Your task to perform on an android device: add a label to a message in the gmail app Image 0: 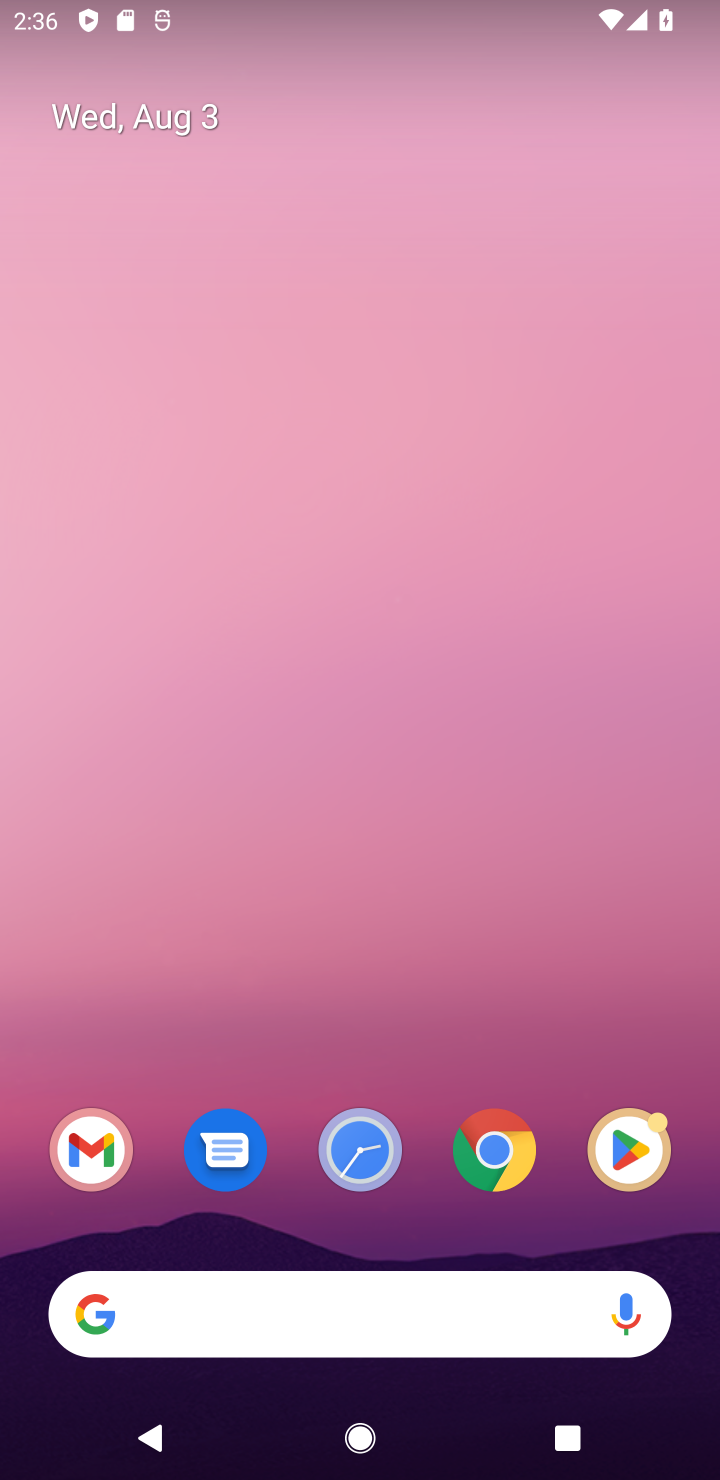
Step 0: drag from (303, 1297) to (269, 340)
Your task to perform on an android device: add a label to a message in the gmail app Image 1: 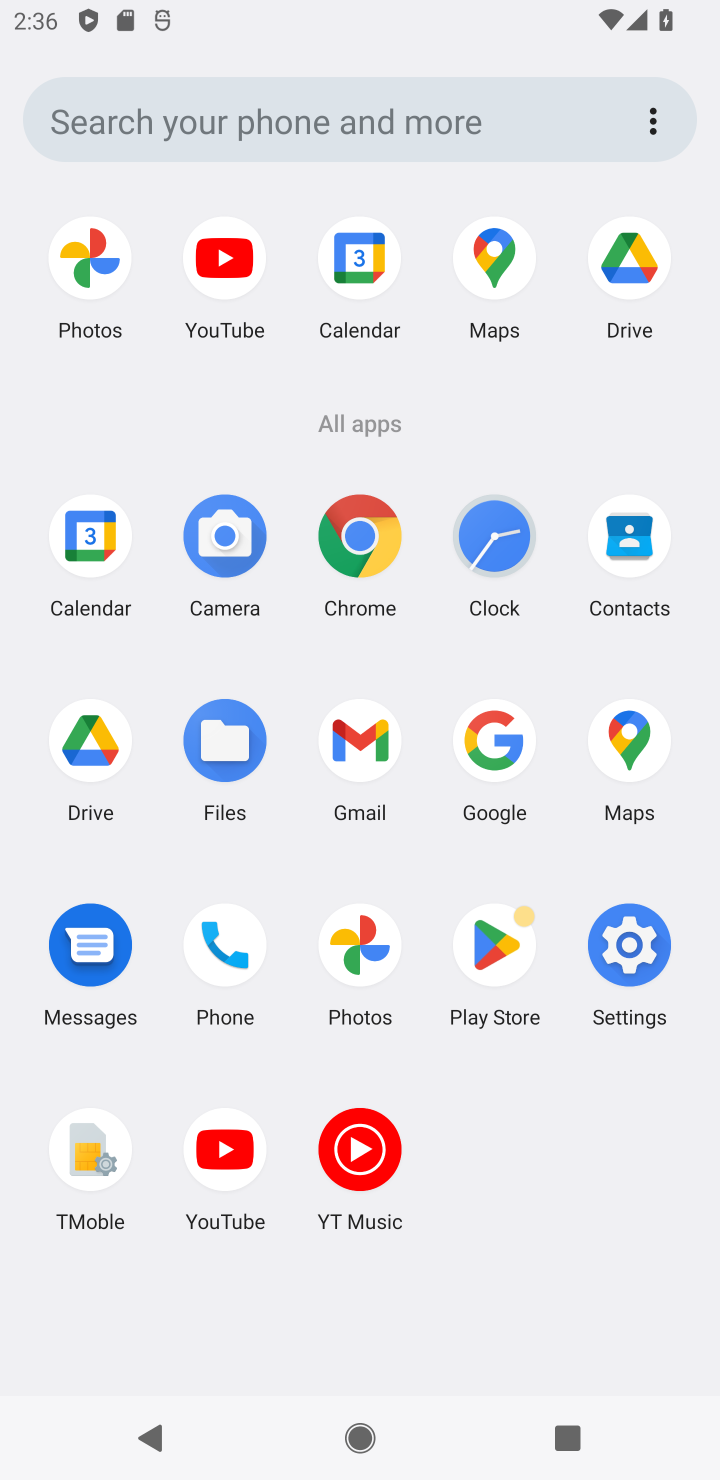
Step 1: click (361, 748)
Your task to perform on an android device: add a label to a message in the gmail app Image 2: 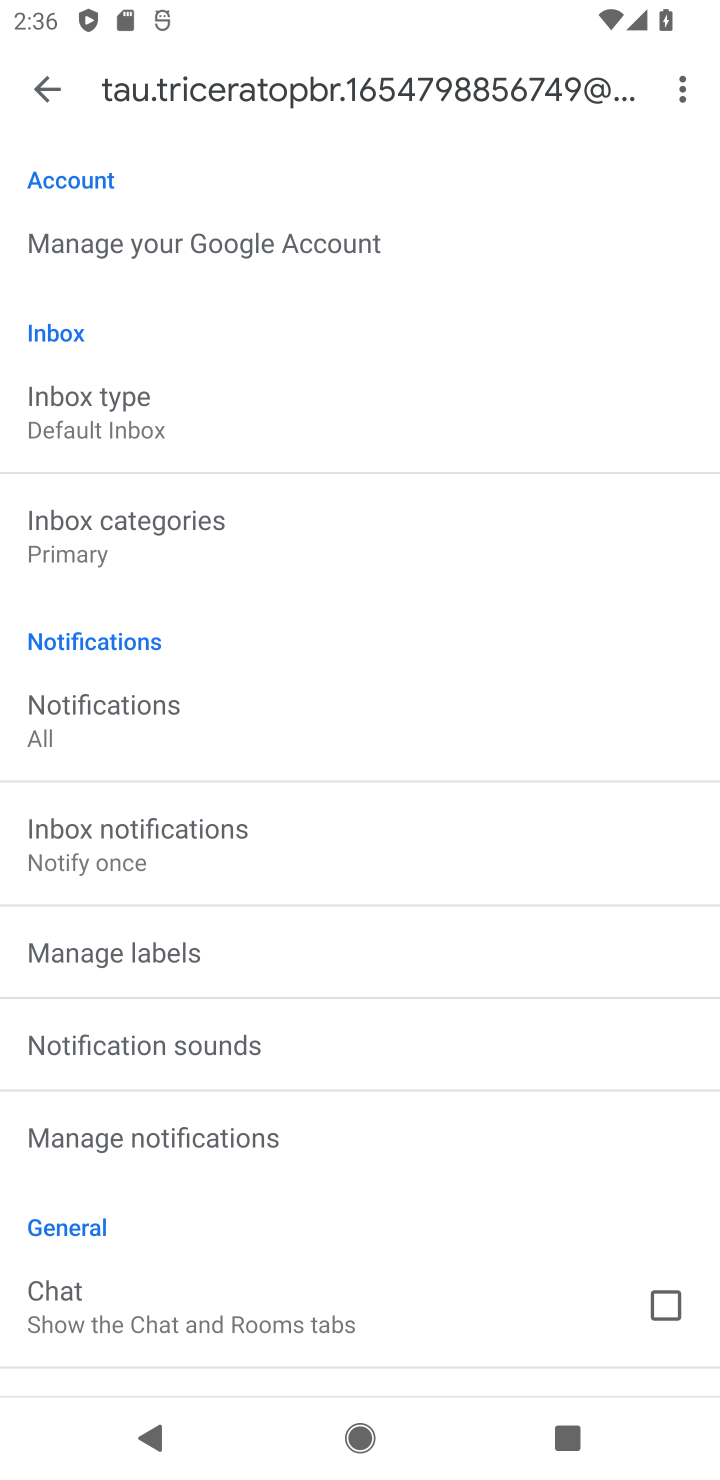
Step 2: click (45, 86)
Your task to perform on an android device: add a label to a message in the gmail app Image 3: 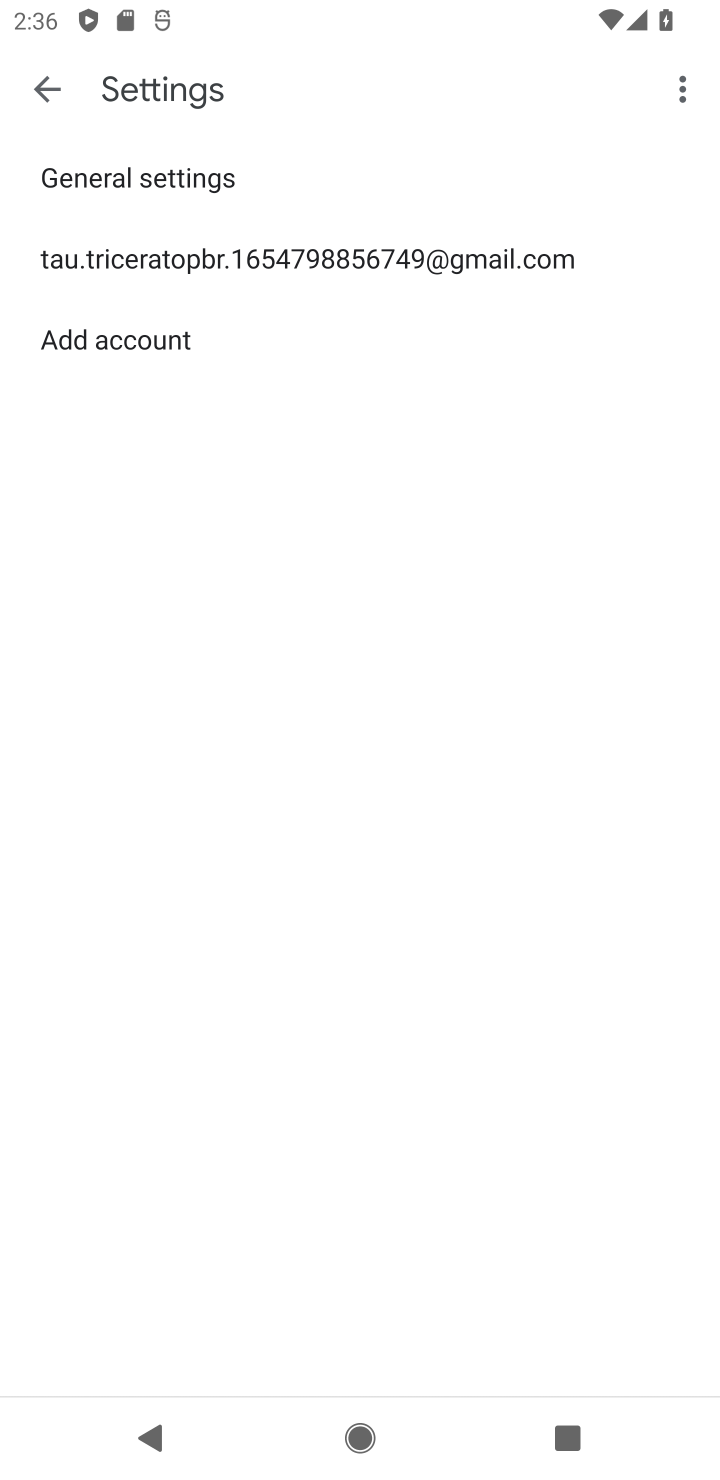
Step 3: click (45, 86)
Your task to perform on an android device: add a label to a message in the gmail app Image 4: 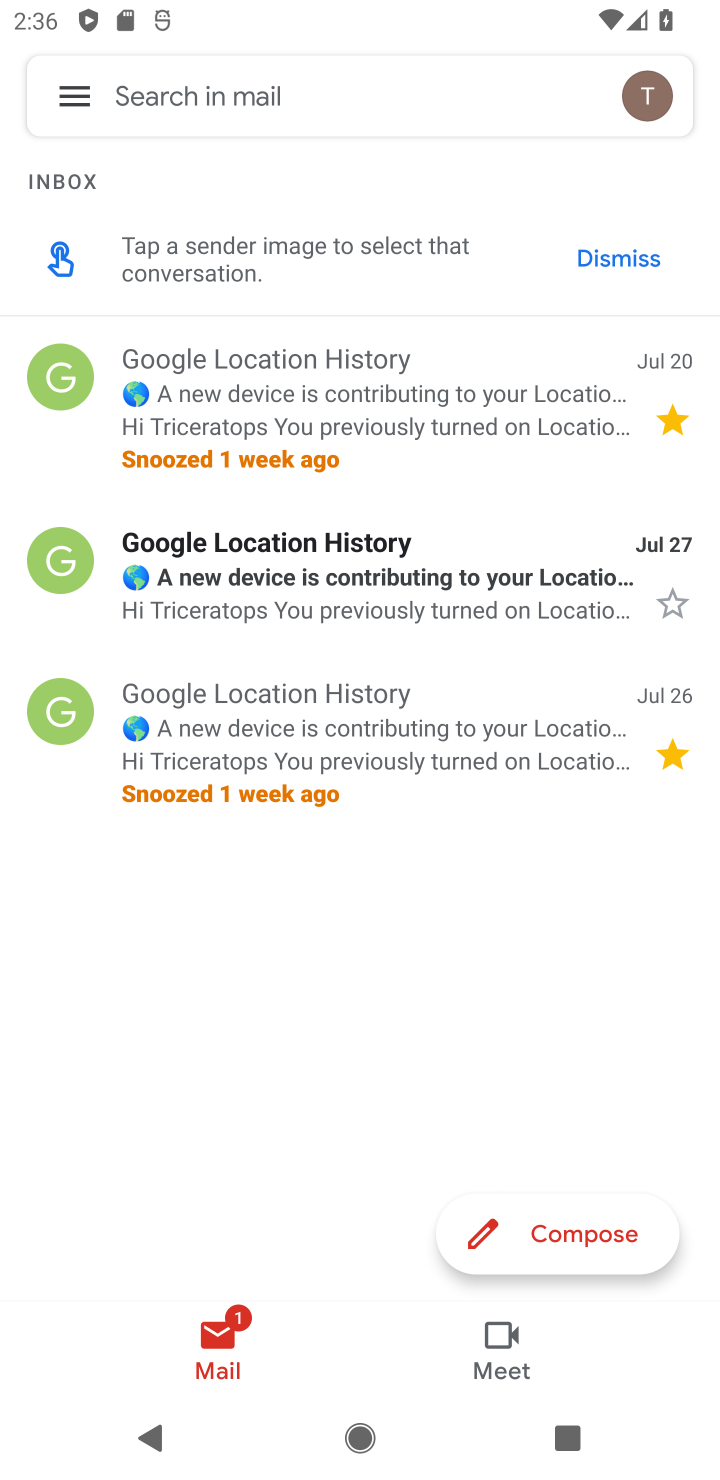
Step 4: click (244, 395)
Your task to perform on an android device: add a label to a message in the gmail app Image 5: 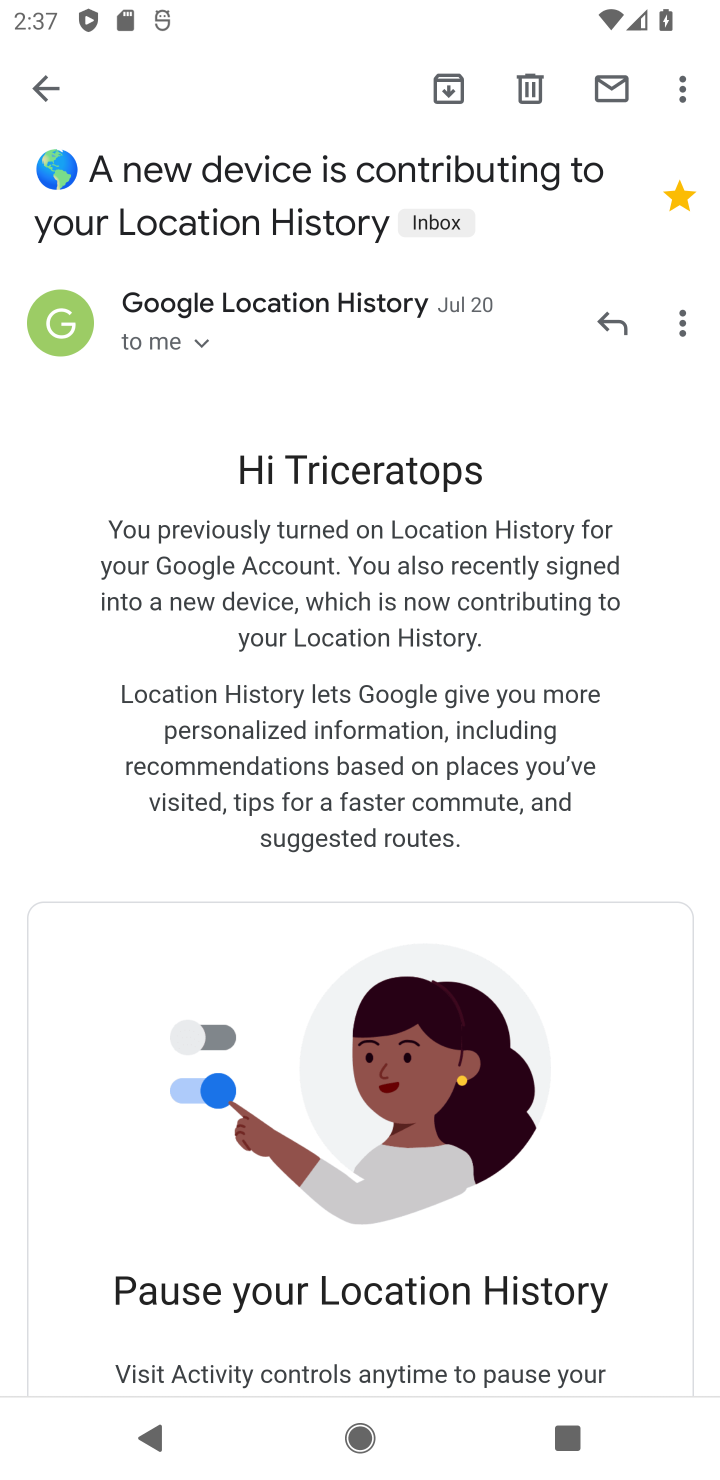
Step 5: click (444, 218)
Your task to perform on an android device: add a label to a message in the gmail app Image 6: 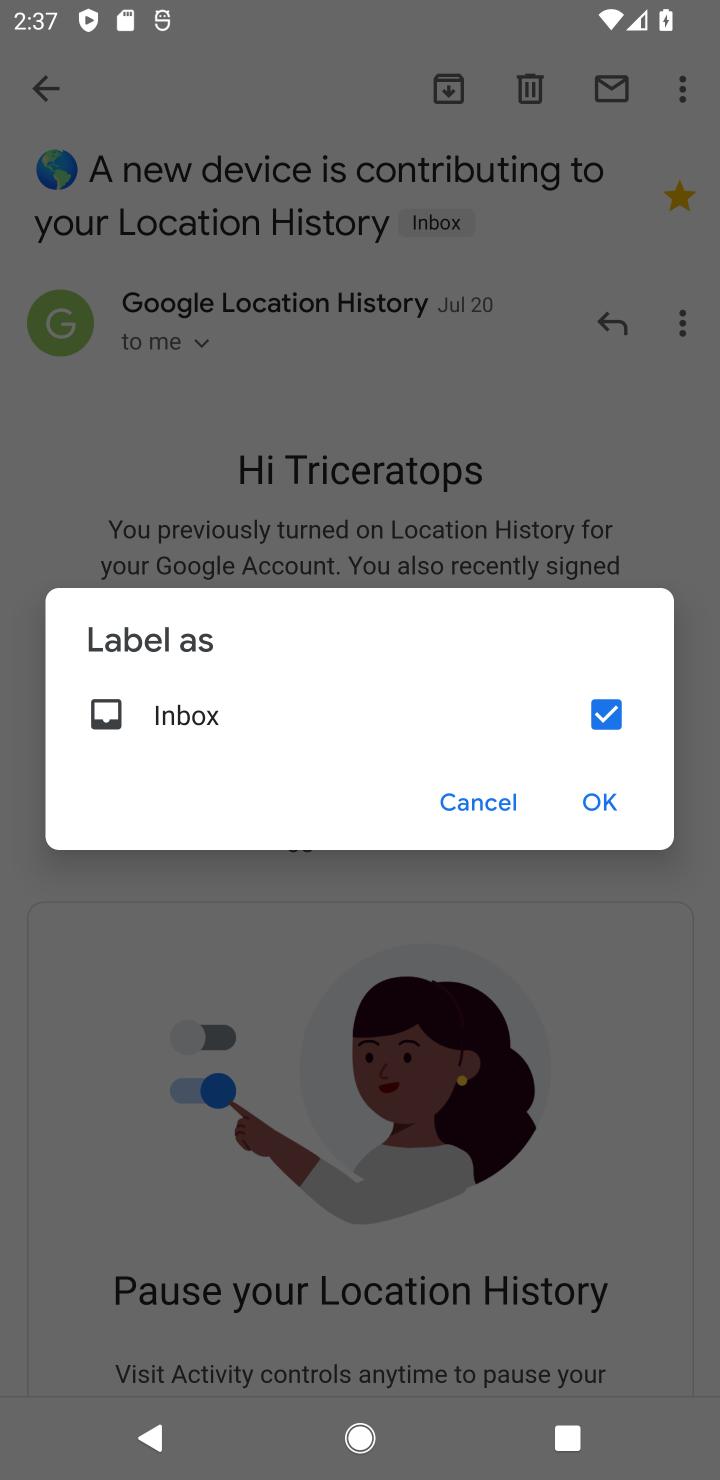
Step 6: click (604, 720)
Your task to perform on an android device: add a label to a message in the gmail app Image 7: 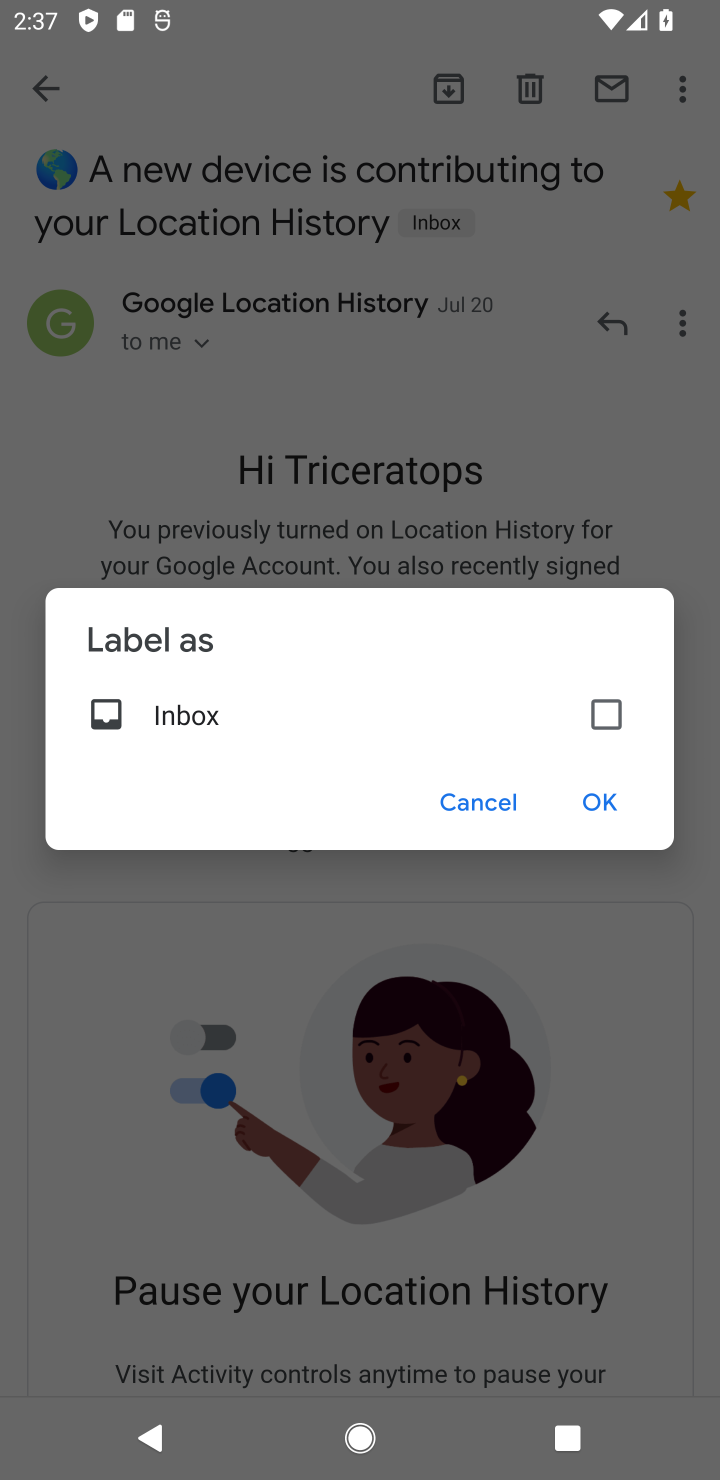
Step 7: click (590, 813)
Your task to perform on an android device: add a label to a message in the gmail app Image 8: 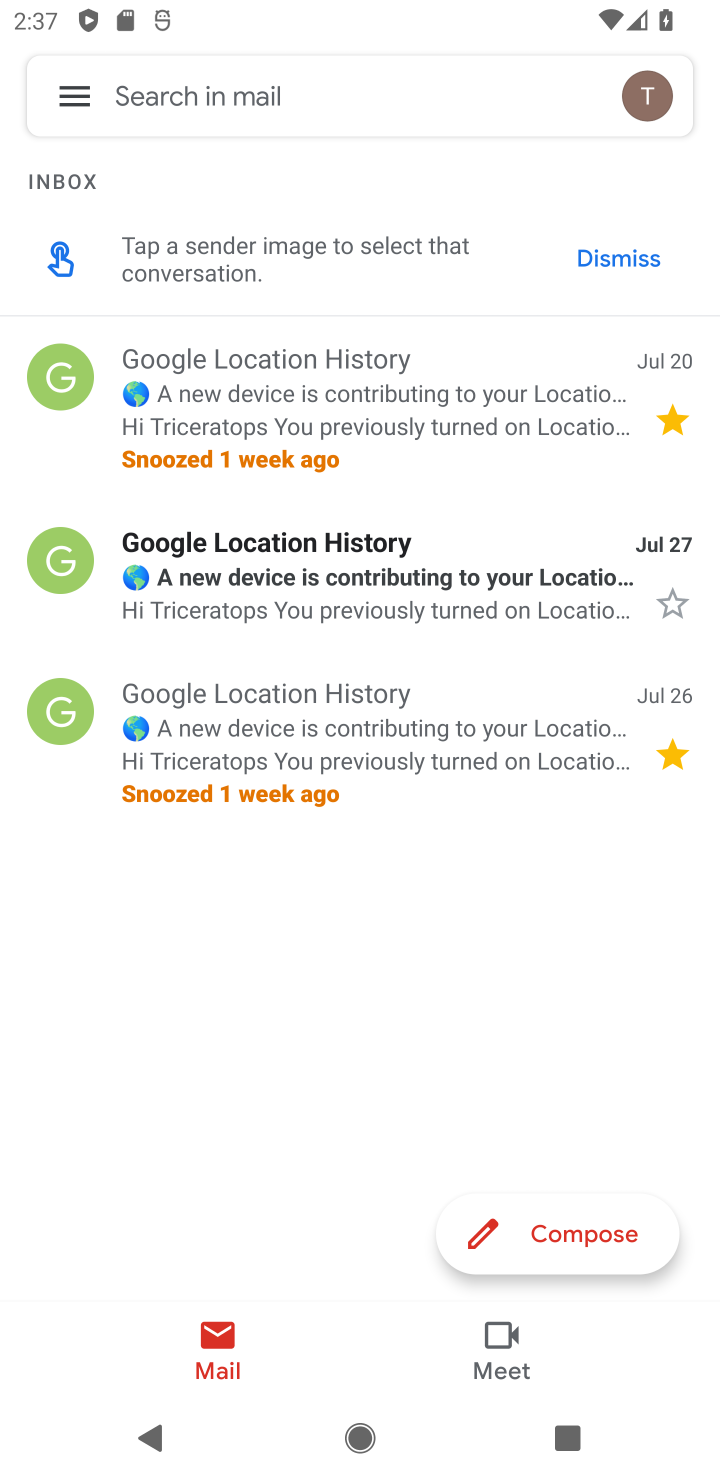
Step 8: task complete